Your task to perform on an android device: Go to notification settings Image 0: 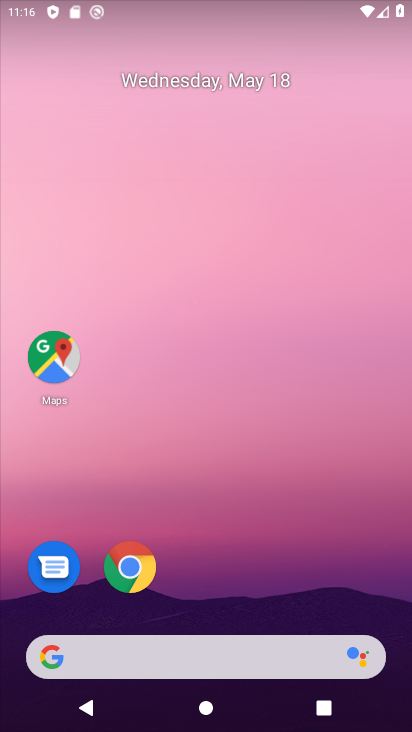
Step 0: drag from (217, 592) to (211, 85)
Your task to perform on an android device: Go to notification settings Image 1: 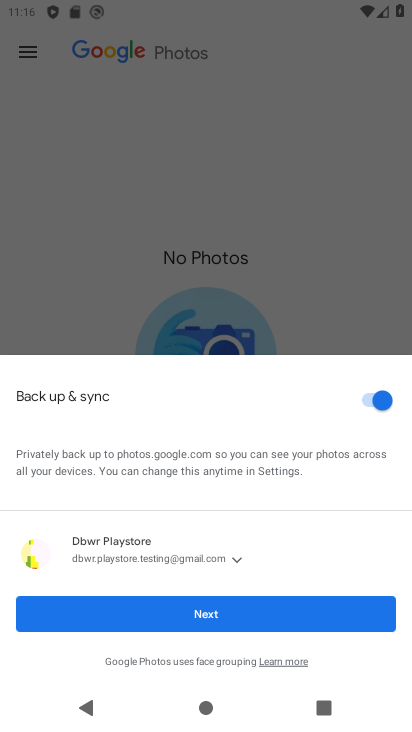
Step 1: press home button
Your task to perform on an android device: Go to notification settings Image 2: 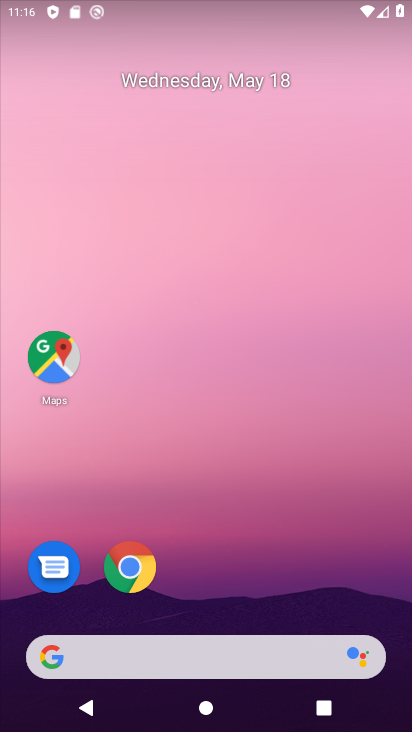
Step 2: drag from (237, 569) to (184, 82)
Your task to perform on an android device: Go to notification settings Image 3: 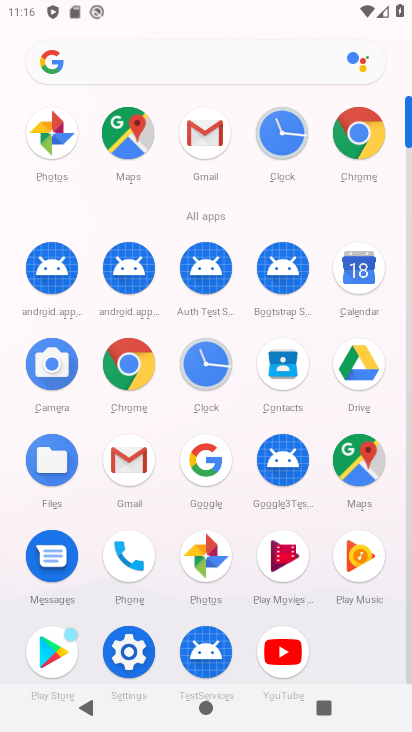
Step 3: click (129, 643)
Your task to perform on an android device: Go to notification settings Image 4: 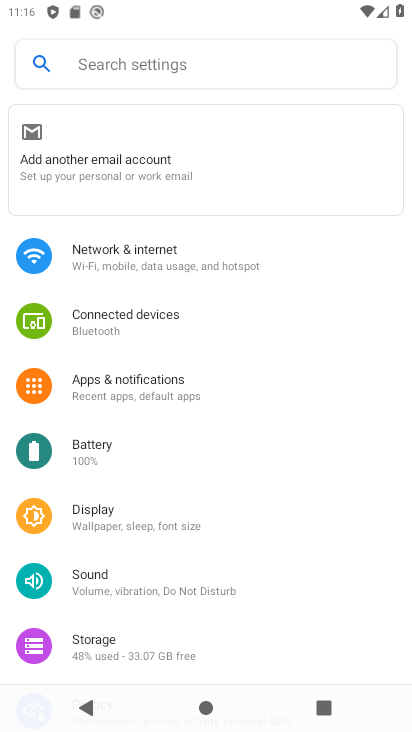
Step 4: click (149, 375)
Your task to perform on an android device: Go to notification settings Image 5: 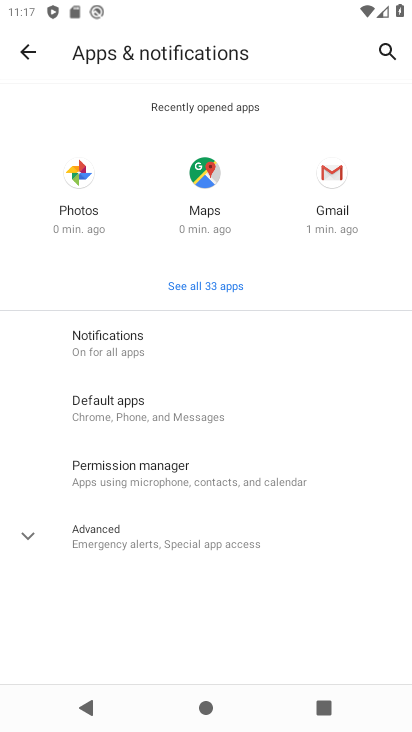
Step 5: task complete